Your task to perform on an android device: change text size in settings app Image 0: 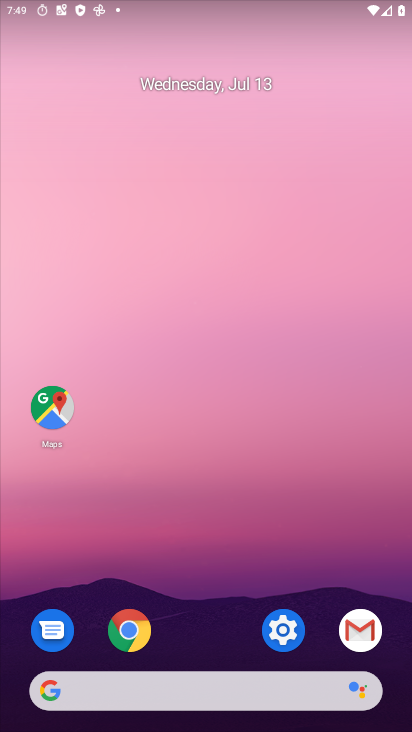
Step 0: click (293, 625)
Your task to perform on an android device: change text size in settings app Image 1: 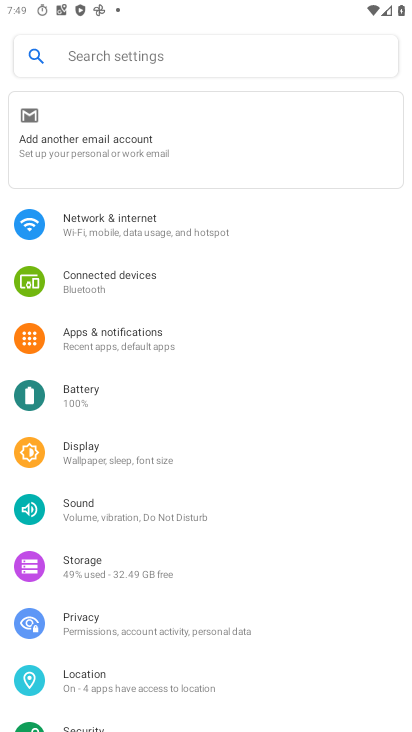
Step 1: click (103, 63)
Your task to perform on an android device: change text size in settings app Image 2: 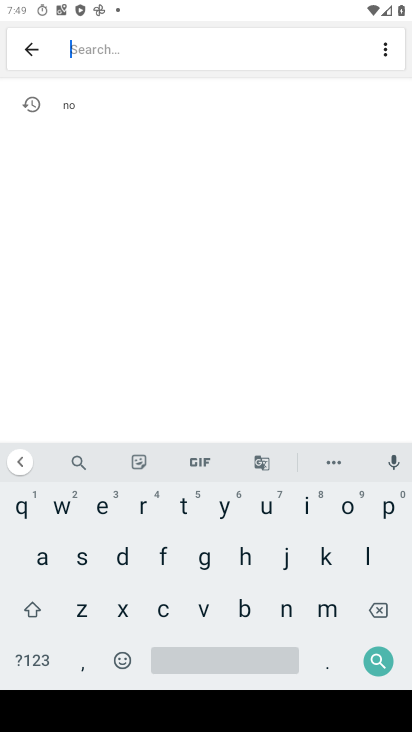
Step 2: click (77, 577)
Your task to perform on an android device: change text size in settings app Image 3: 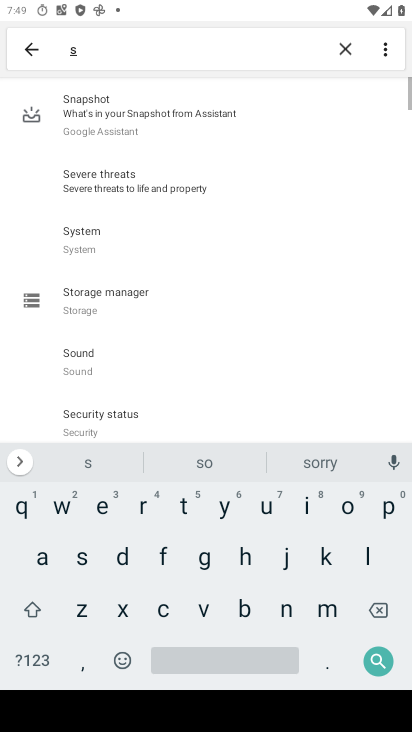
Step 3: click (310, 508)
Your task to perform on an android device: change text size in settings app Image 4: 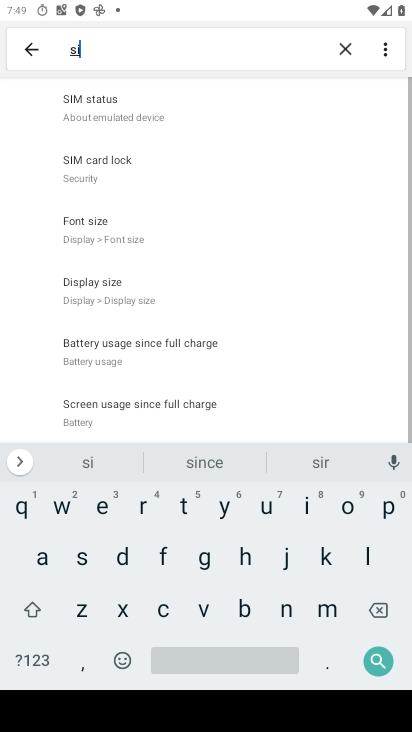
Step 4: click (82, 610)
Your task to perform on an android device: change text size in settings app Image 5: 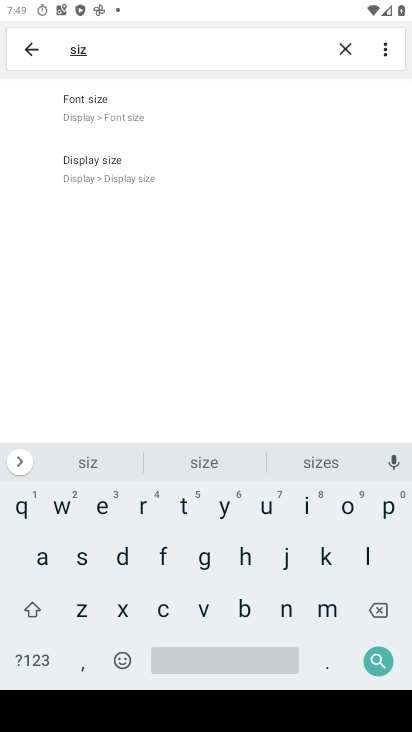
Step 5: click (119, 106)
Your task to perform on an android device: change text size in settings app Image 6: 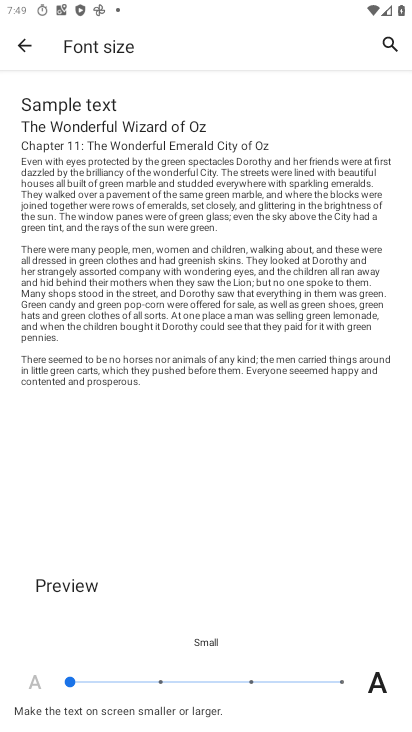
Step 6: click (158, 677)
Your task to perform on an android device: change text size in settings app Image 7: 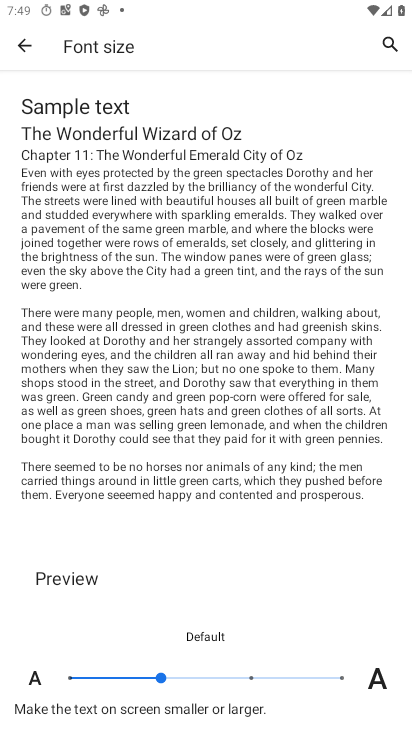
Step 7: task complete